Your task to perform on an android device: Open Maps and search for coffee Image 0: 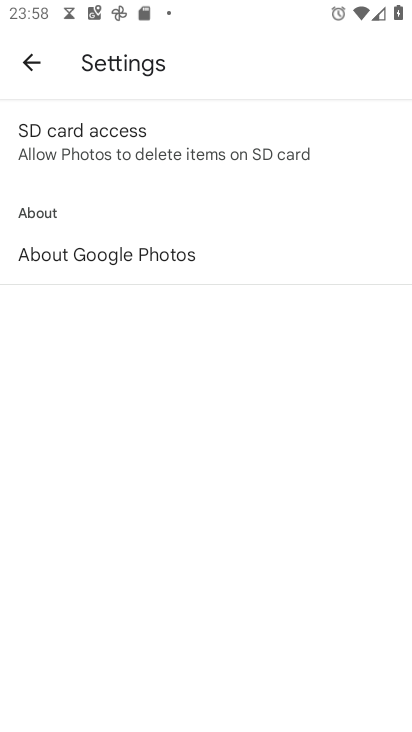
Step 0: press home button
Your task to perform on an android device: Open Maps and search for coffee Image 1: 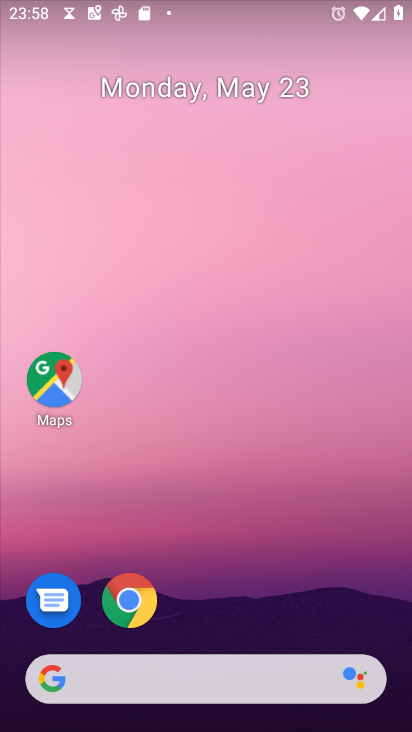
Step 1: drag from (235, 726) to (240, 139)
Your task to perform on an android device: Open Maps and search for coffee Image 2: 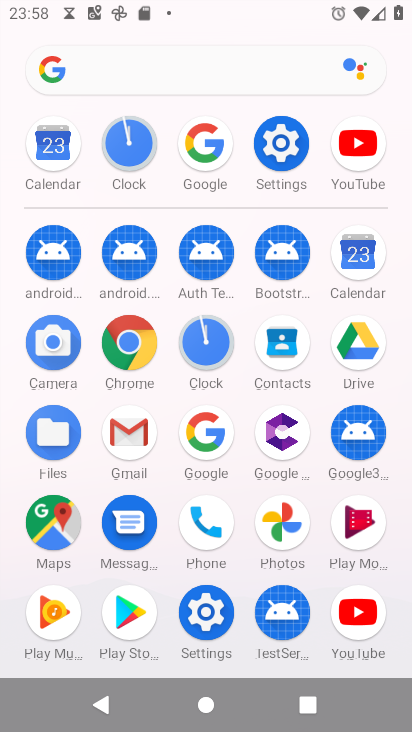
Step 2: click (46, 519)
Your task to perform on an android device: Open Maps and search for coffee Image 3: 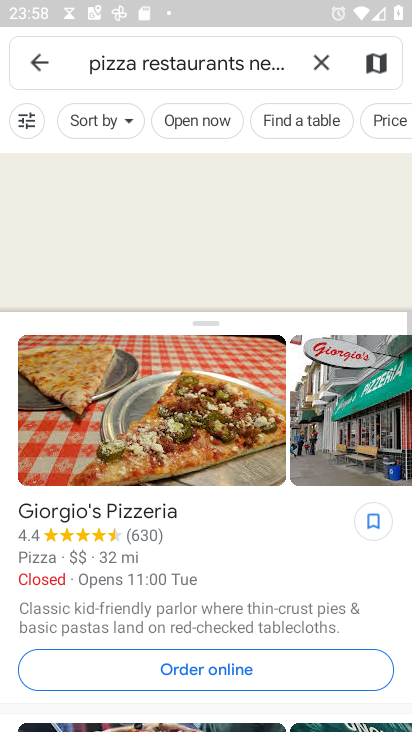
Step 3: click (319, 60)
Your task to perform on an android device: Open Maps and search for coffee Image 4: 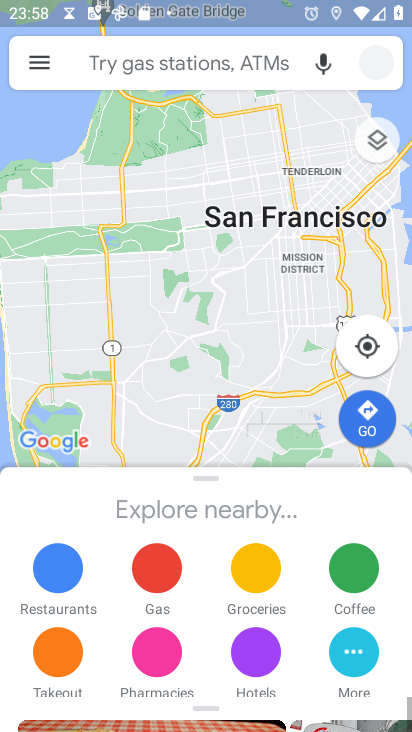
Step 4: click (203, 60)
Your task to perform on an android device: Open Maps and search for coffee Image 5: 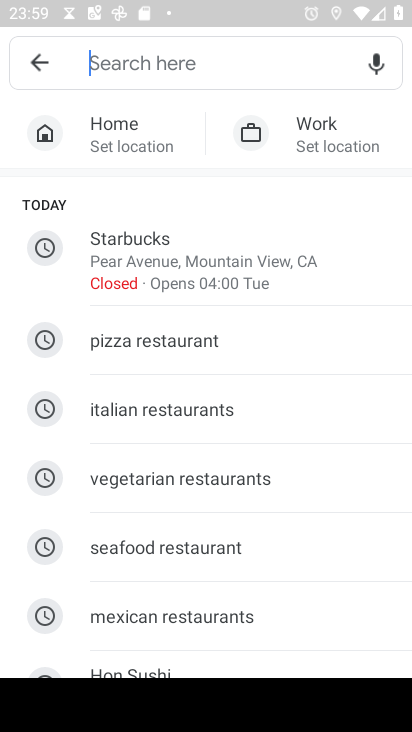
Step 5: type "coffee"
Your task to perform on an android device: Open Maps and search for coffee Image 6: 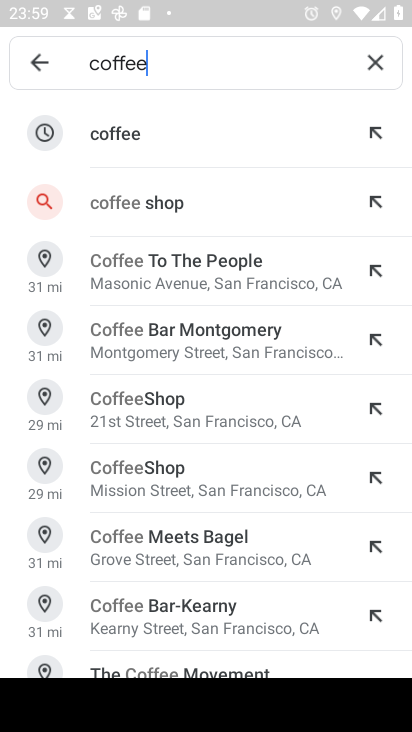
Step 6: click (110, 135)
Your task to perform on an android device: Open Maps and search for coffee Image 7: 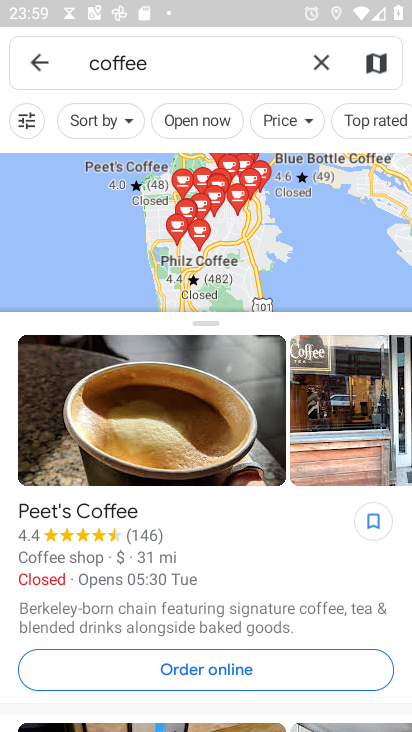
Step 7: task complete